Your task to perform on an android device: turn notification dots on Image 0: 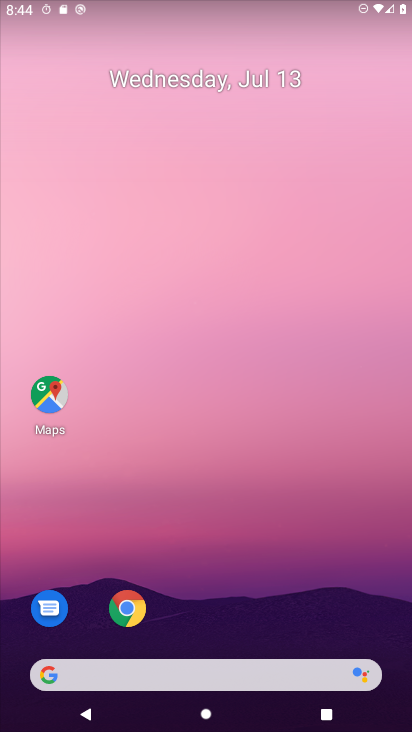
Step 0: drag from (251, 595) to (166, 78)
Your task to perform on an android device: turn notification dots on Image 1: 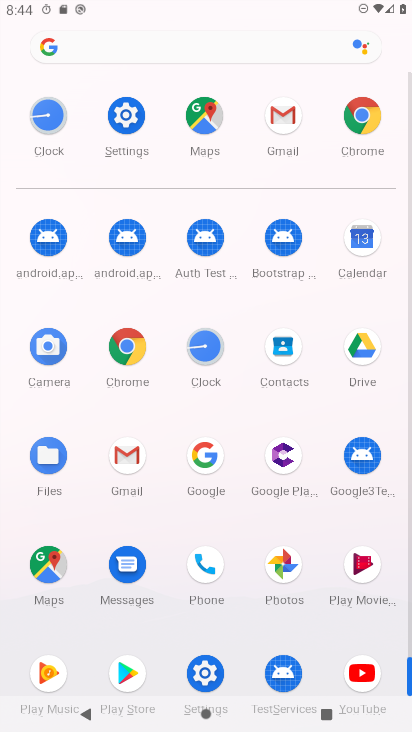
Step 1: click (126, 101)
Your task to perform on an android device: turn notification dots on Image 2: 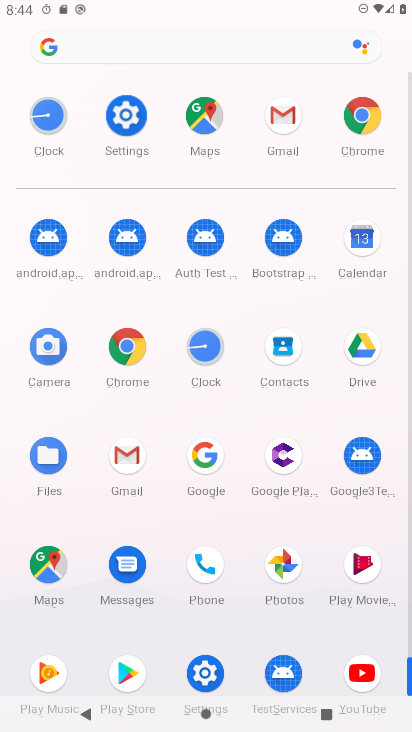
Step 2: click (125, 105)
Your task to perform on an android device: turn notification dots on Image 3: 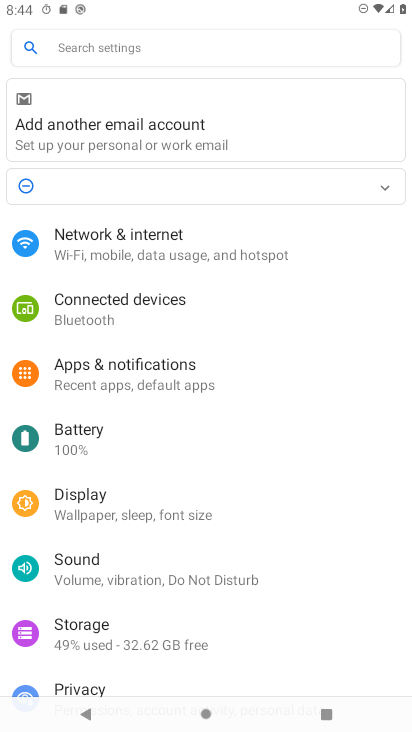
Step 3: click (126, 379)
Your task to perform on an android device: turn notification dots on Image 4: 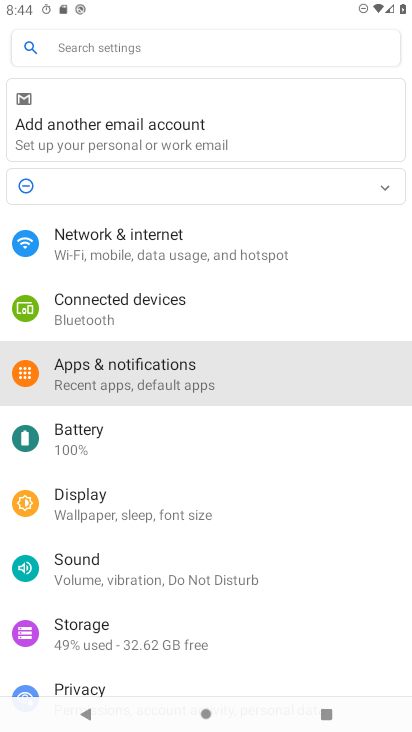
Step 4: click (128, 380)
Your task to perform on an android device: turn notification dots on Image 5: 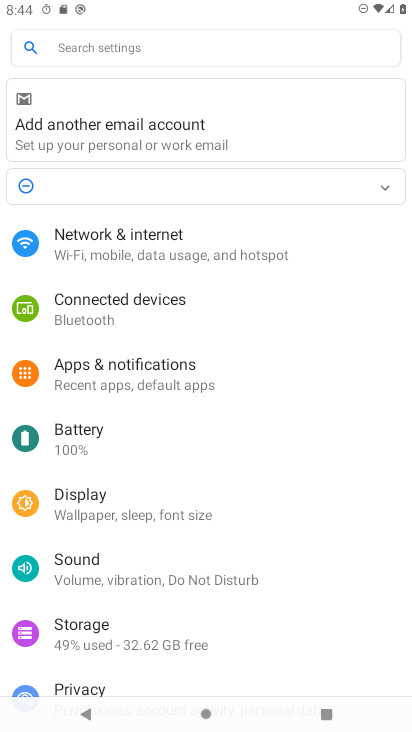
Step 5: click (130, 380)
Your task to perform on an android device: turn notification dots on Image 6: 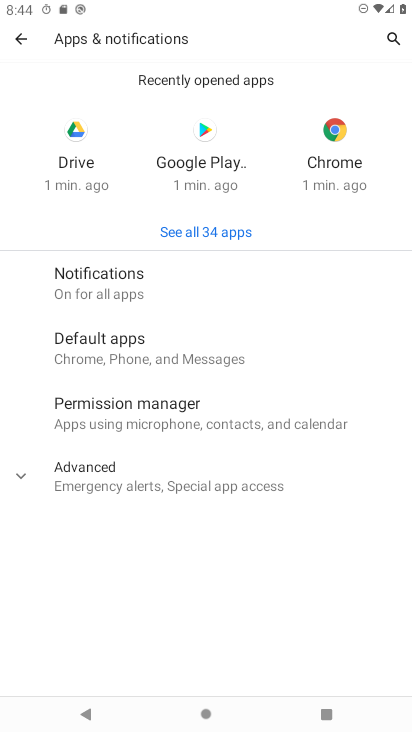
Step 6: click (98, 293)
Your task to perform on an android device: turn notification dots on Image 7: 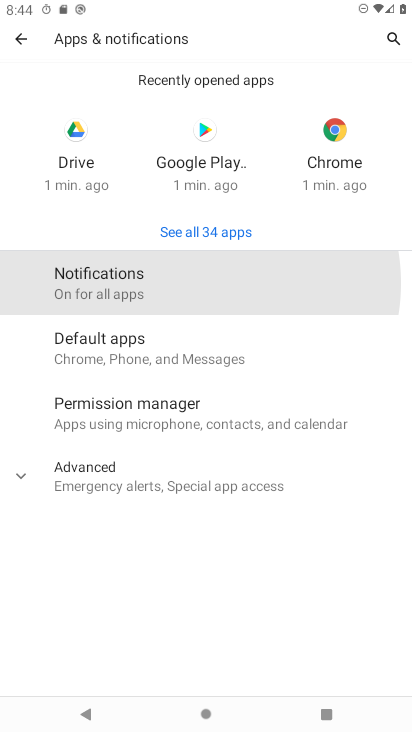
Step 7: click (99, 293)
Your task to perform on an android device: turn notification dots on Image 8: 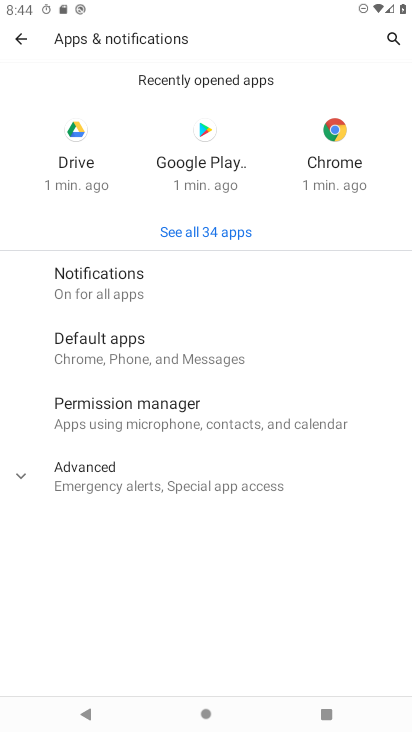
Step 8: click (105, 290)
Your task to perform on an android device: turn notification dots on Image 9: 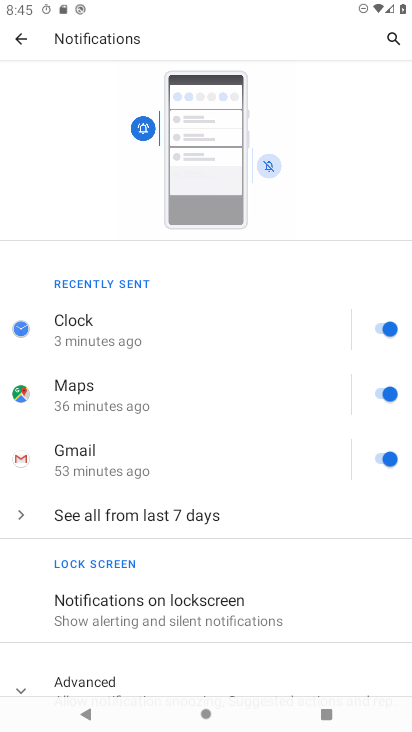
Step 9: drag from (124, 630) to (71, 338)
Your task to perform on an android device: turn notification dots on Image 10: 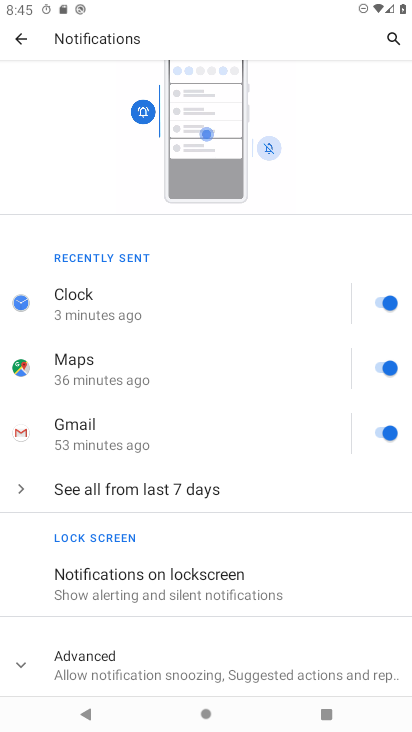
Step 10: click (106, 648)
Your task to perform on an android device: turn notification dots on Image 11: 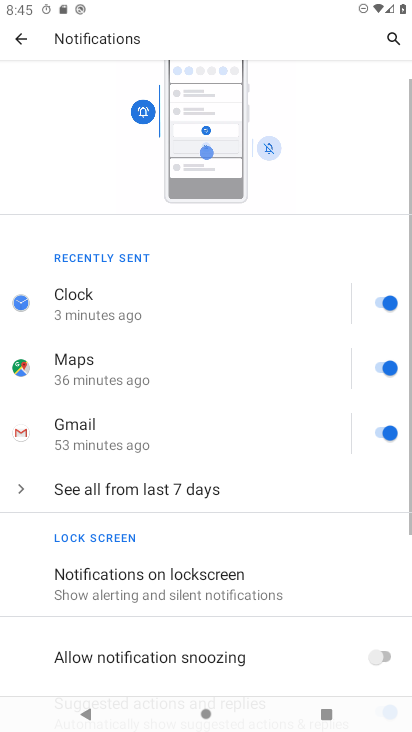
Step 11: drag from (155, 635) to (165, 302)
Your task to perform on an android device: turn notification dots on Image 12: 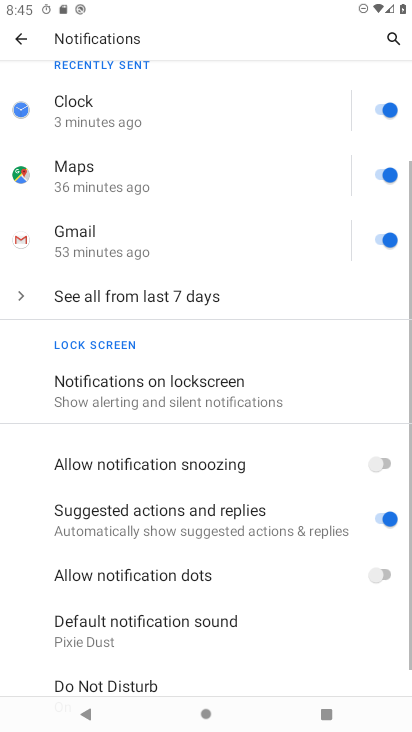
Step 12: drag from (191, 550) to (191, 275)
Your task to perform on an android device: turn notification dots on Image 13: 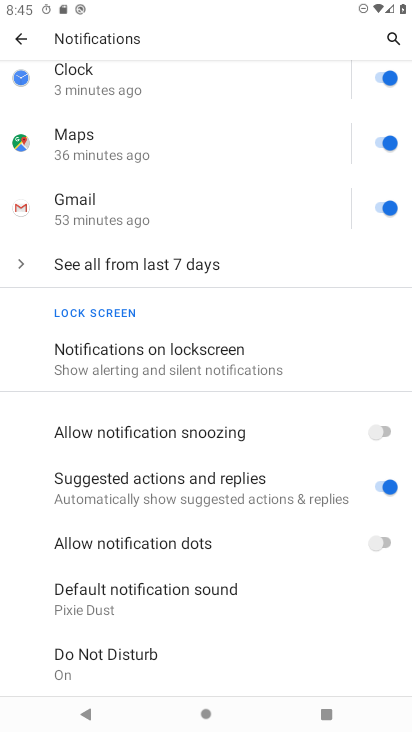
Step 13: click (379, 543)
Your task to perform on an android device: turn notification dots on Image 14: 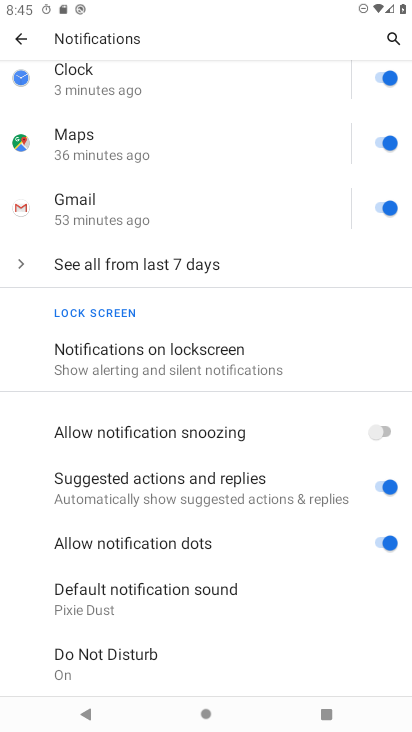
Step 14: click (389, 484)
Your task to perform on an android device: turn notification dots on Image 15: 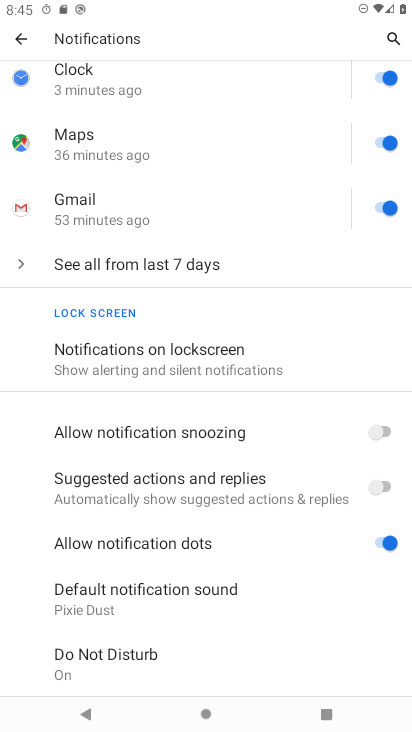
Step 15: task complete